Your task to perform on an android device: Open privacy settings Image 0: 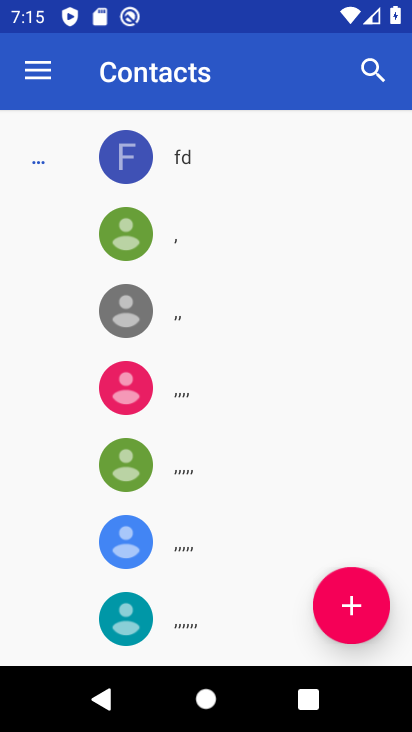
Step 0: press home button
Your task to perform on an android device: Open privacy settings Image 1: 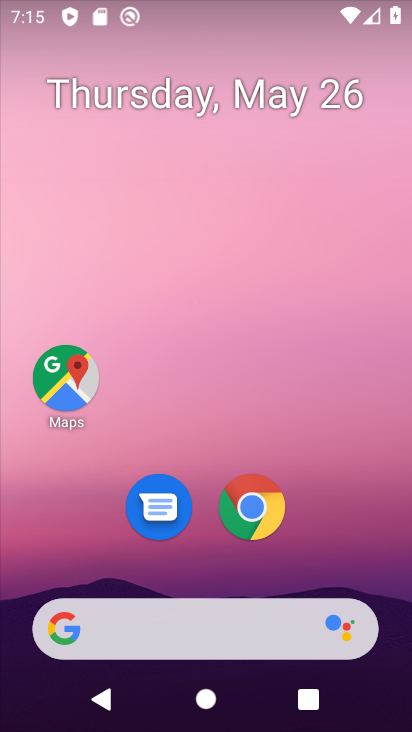
Step 1: drag from (181, 579) to (242, 9)
Your task to perform on an android device: Open privacy settings Image 2: 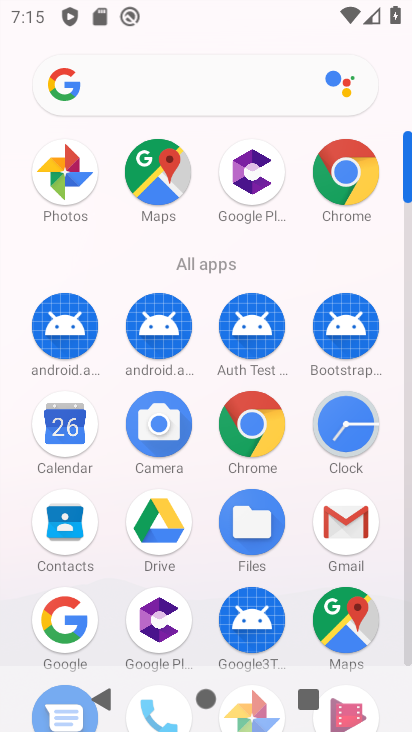
Step 2: drag from (302, 650) to (339, 219)
Your task to perform on an android device: Open privacy settings Image 3: 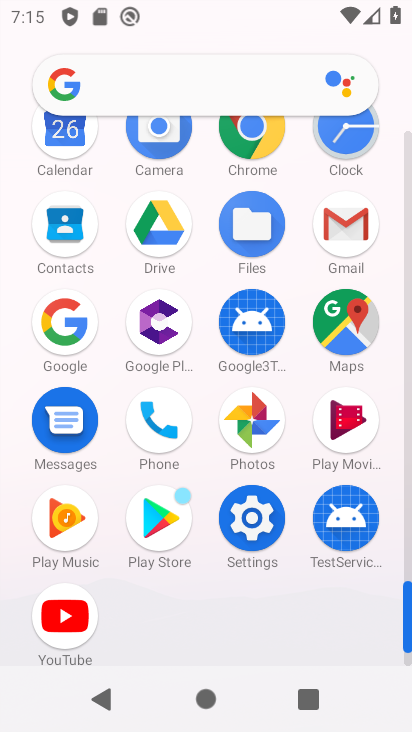
Step 3: click (231, 531)
Your task to perform on an android device: Open privacy settings Image 4: 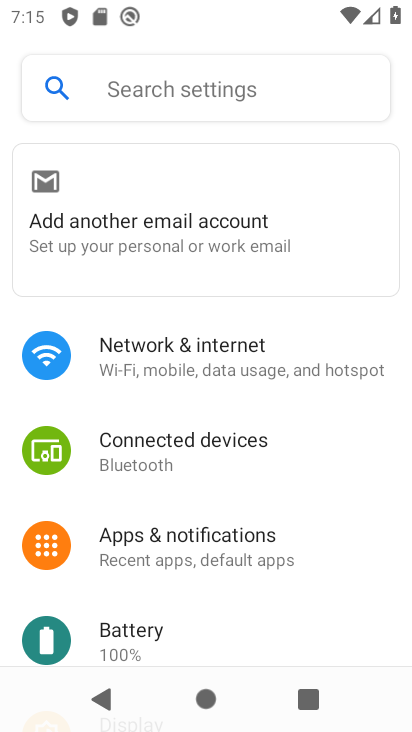
Step 4: drag from (203, 626) to (211, 197)
Your task to perform on an android device: Open privacy settings Image 5: 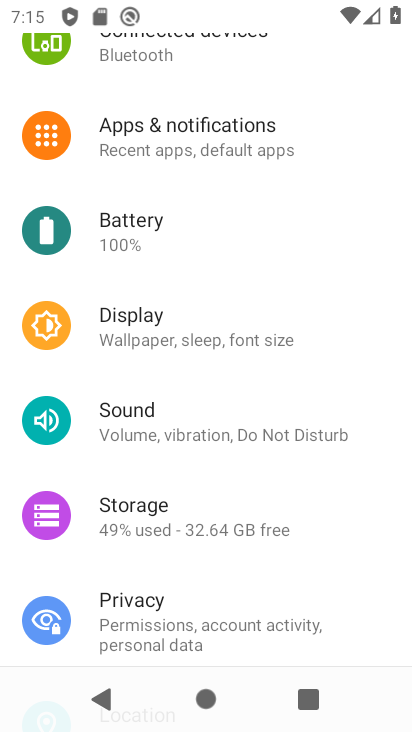
Step 5: click (156, 607)
Your task to perform on an android device: Open privacy settings Image 6: 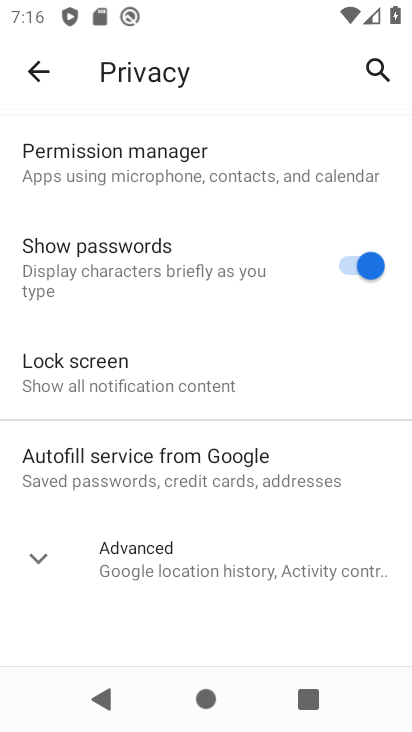
Step 6: task complete